Your task to perform on an android device: Go to accessibility settings Image 0: 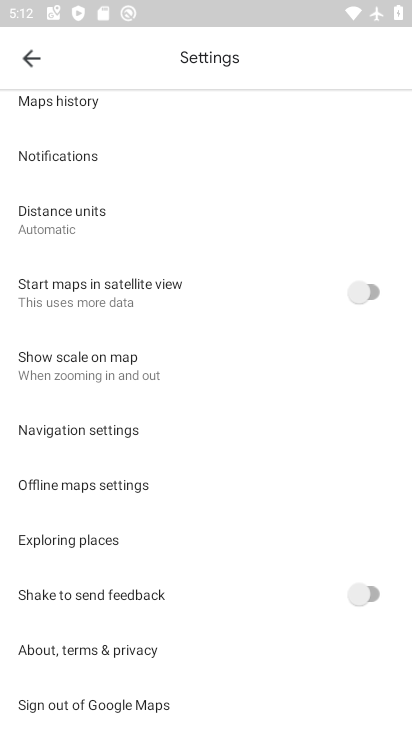
Step 0: press home button
Your task to perform on an android device: Go to accessibility settings Image 1: 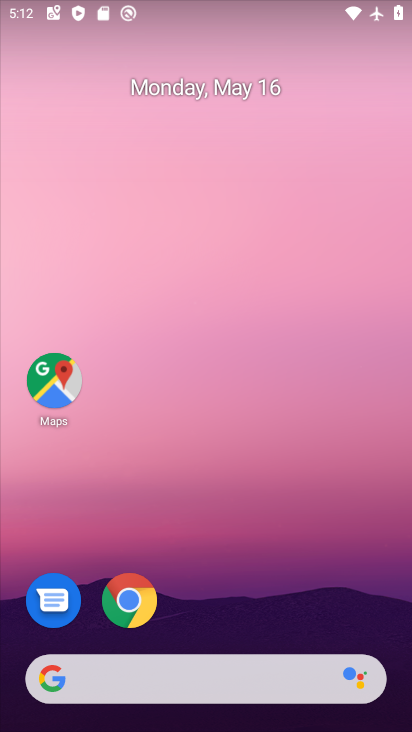
Step 1: drag from (198, 653) to (143, 20)
Your task to perform on an android device: Go to accessibility settings Image 2: 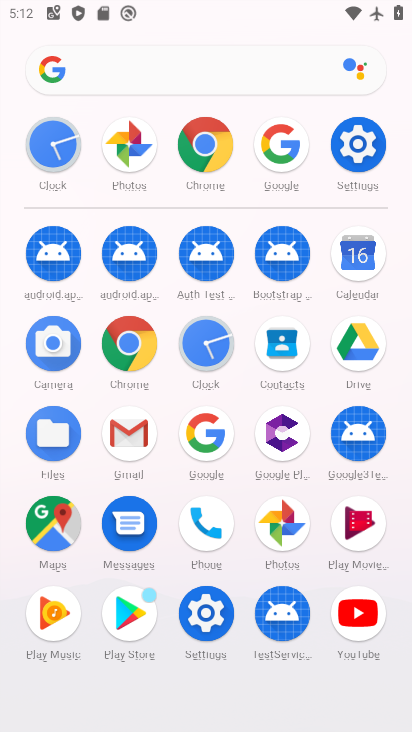
Step 2: click (343, 160)
Your task to perform on an android device: Go to accessibility settings Image 3: 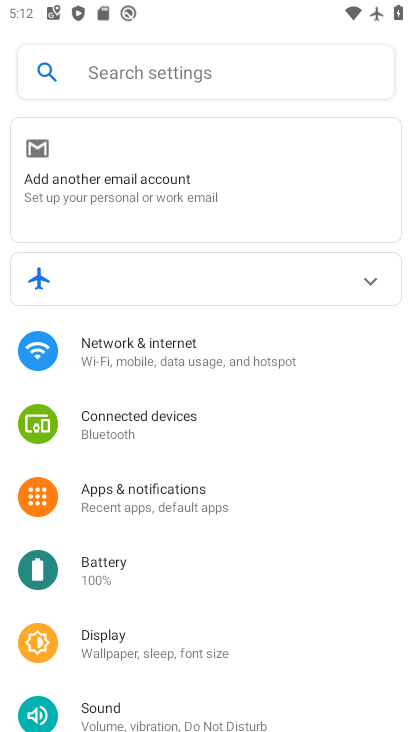
Step 3: drag from (135, 553) to (114, 120)
Your task to perform on an android device: Go to accessibility settings Image 4: 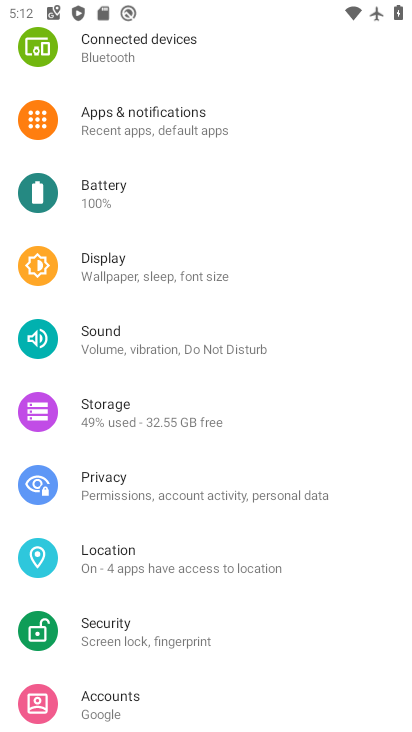
Step 4: drag from (160, 620) to (124, 206)
Your task to perform on an android device: Go to accessibility settings Image 5: 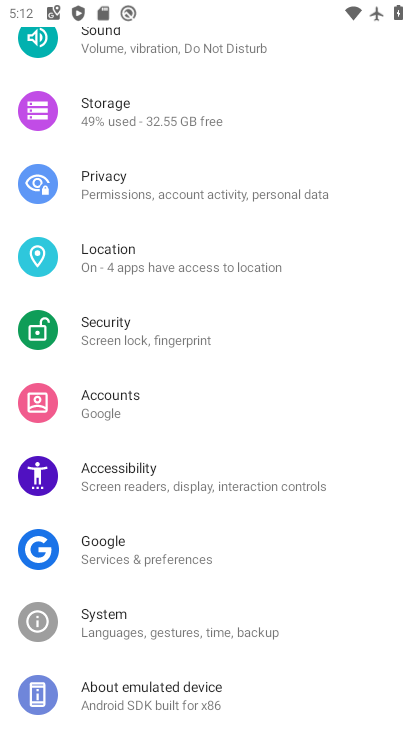
Step 5: click (126, 460)
Your task to perform on an android device: Go to accessibility settings Image 6: 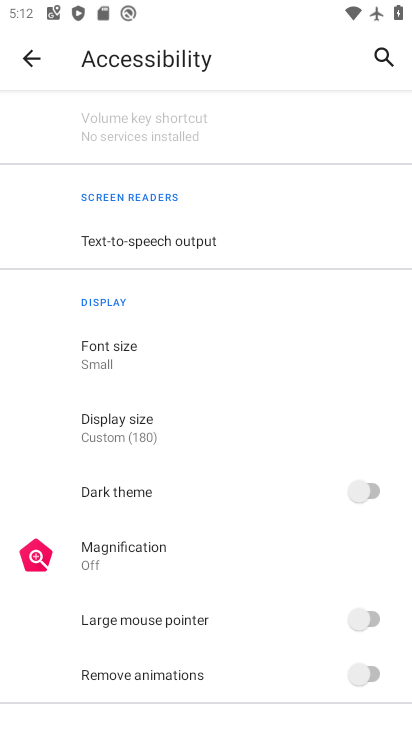
Step 6: task complete